Your task to perform on an android device: turn smart compose on in the gmail app Image 0: 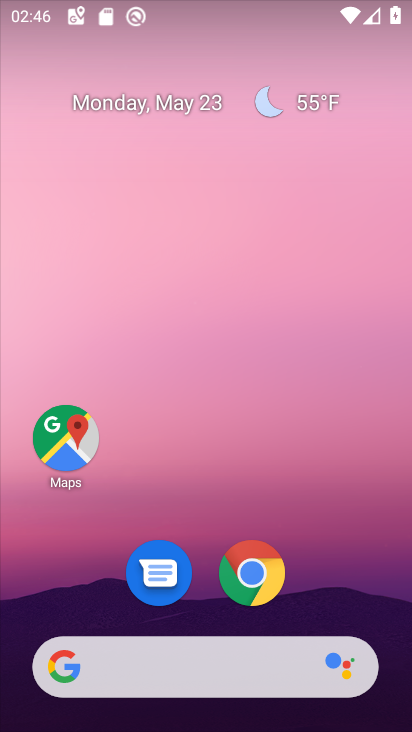
Step 0: drag from (317, 563) to (318, 264)
Your task to perform on an android device: turn smart compose on in the gmail app Image 1: 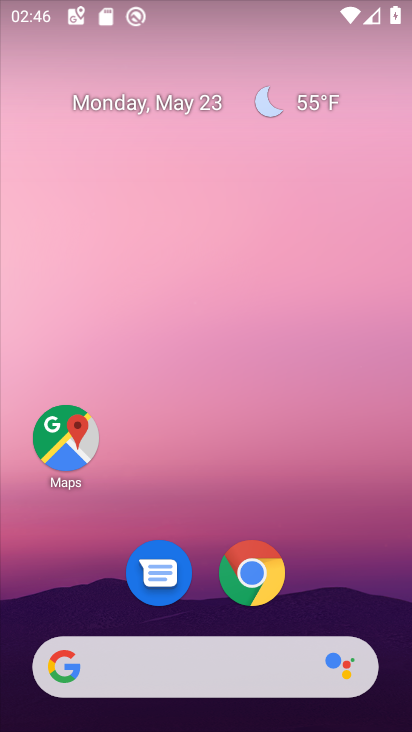
Step 1: drag from (316, 578) to (303, 192)
Your task to perform on an android device: turn smart compose on in the gmail app Image 2: 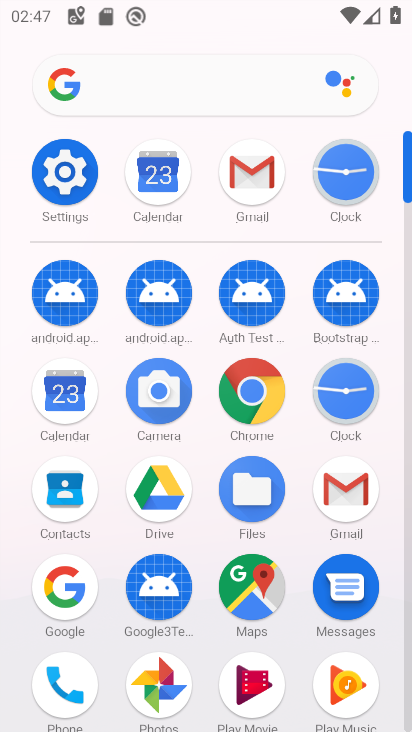
Step 2: click (243, 202)
Your task to perform on an android device: turn smart compose on in the gmail app Image 3: 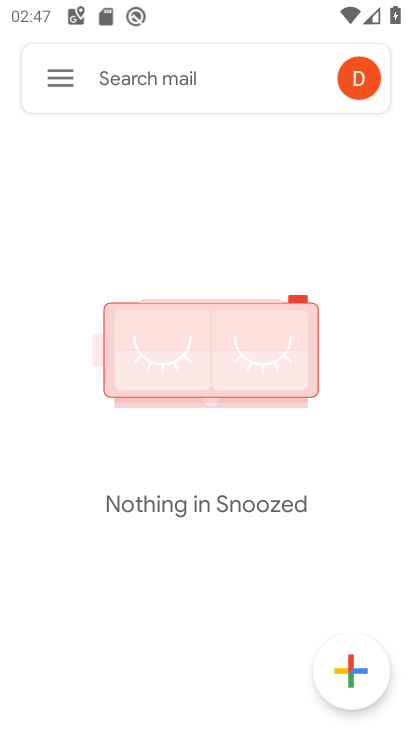
Step 3: click (69, 81)
Your task to perform on an android device: turn smart compose on in the gmail app Image 4: 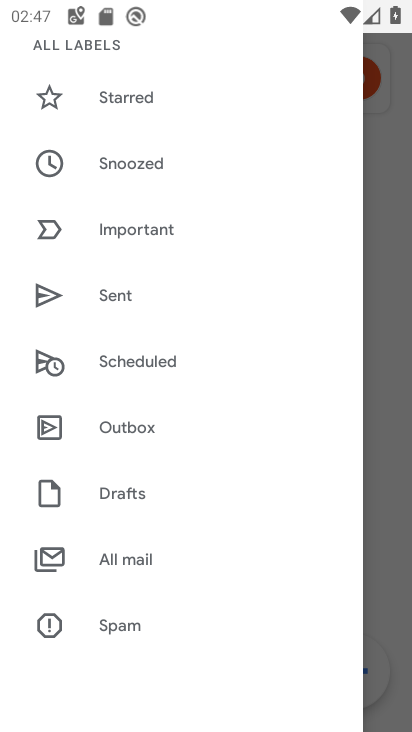
Step 4: drag from (195, 528) to (184, 197)
Your task to perform on an android device: turn smart compose on in the gmail app Image 5: 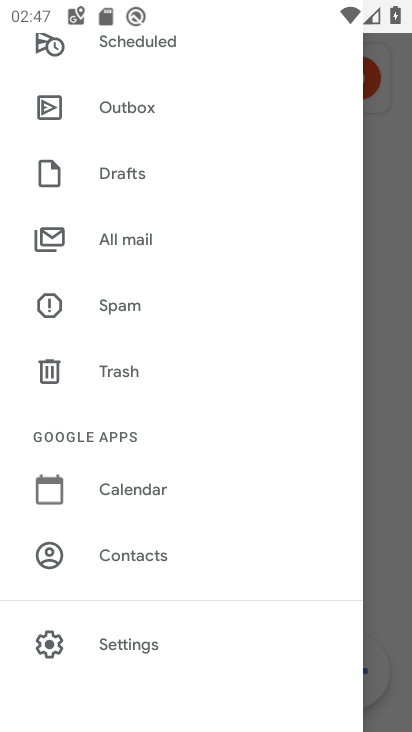
Step 5: drag from (171, 504) to (172, 241)
Your task to perform on an android device: turn smart compose on in the gmail app Image 6: 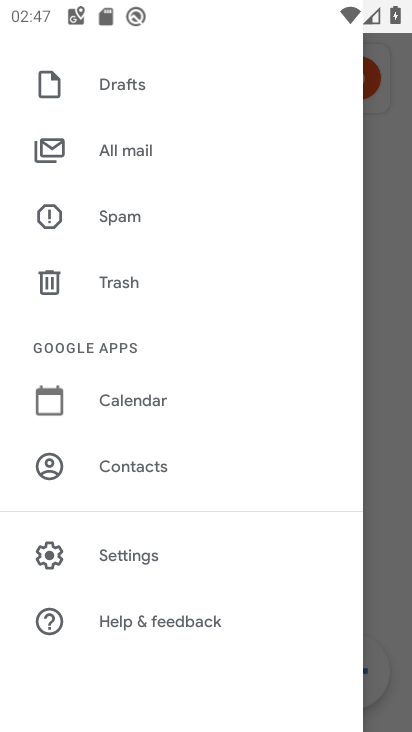
Step 6: drag from (200, 570) to (214, 259)
Your task to perform on an android device: turn smart compose on in the gmail app Image 7: 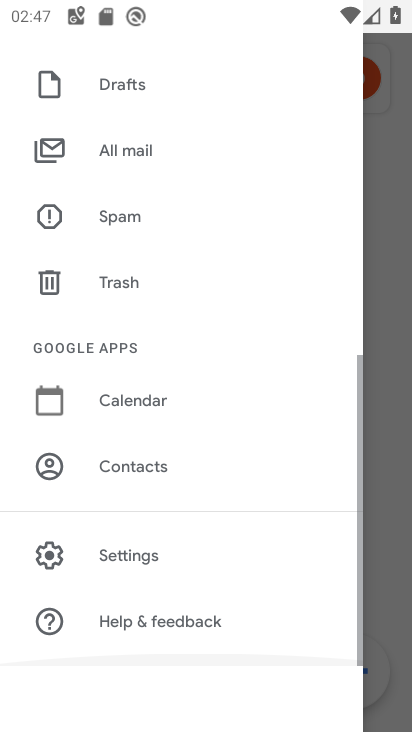
Step 7: drag from (231, 152) to (269, 610)
Your task to perform on an android device: turn smart compose on in the gmail app Image 8: 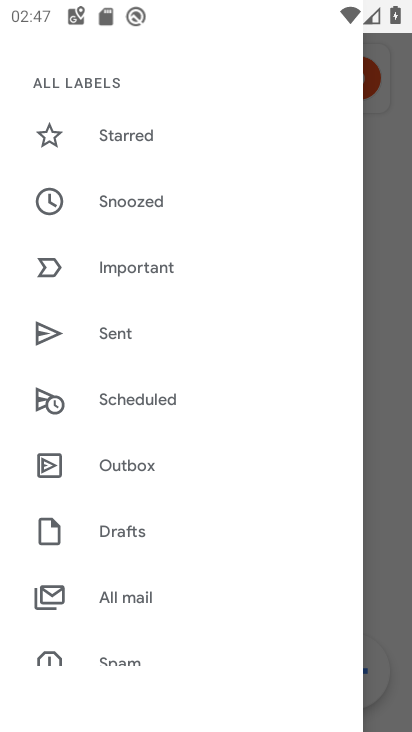
Step 8: drag from (231, 229) to (254, 654)
Your task to perform on an android device: turn smart compose on in the gmail app Image 9: 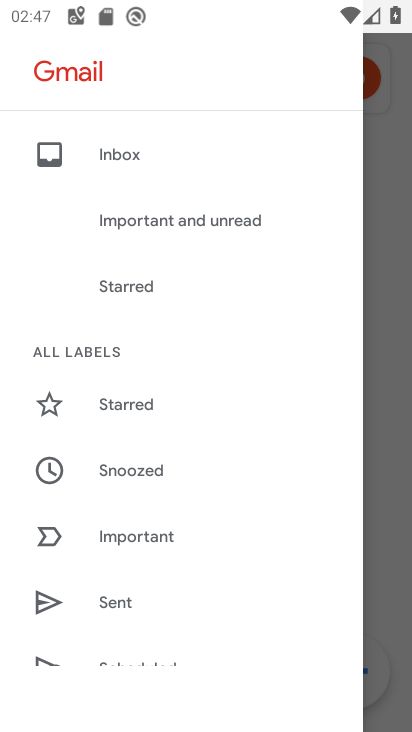
Step 9: drag from (243, 526) to (242, 117)
Your task to perform on an android device: turn smart compose on in the gmail app Image 10: 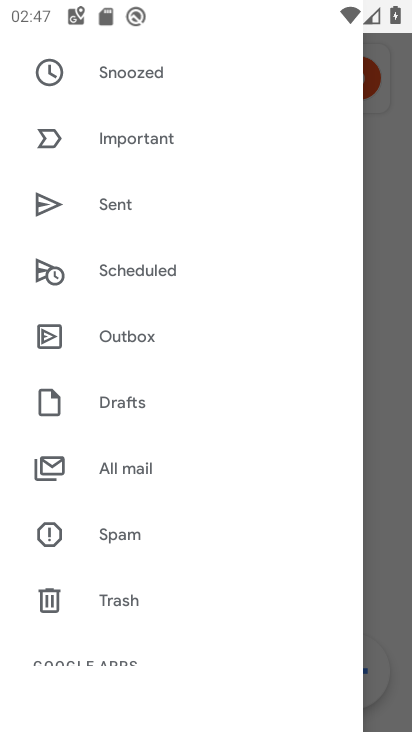
Step 10: drag from (224, 508) to (229, 135)
Your task to perform on an android device: turn smart compose on in the gmail app Image 11: 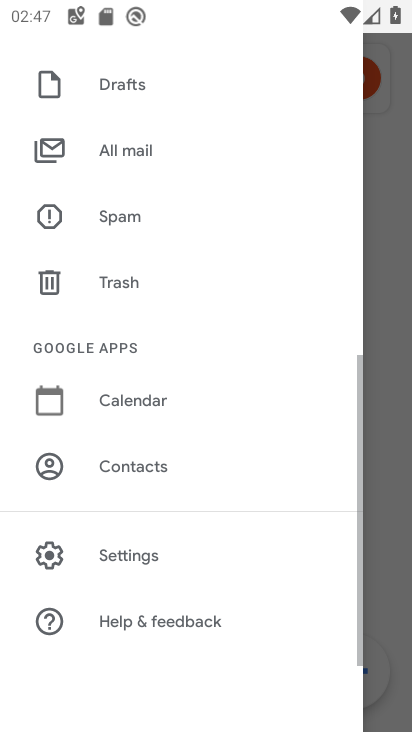
Step 11: click (156, 550)
Your task to perform on an android device: turn smart compose on in the gmail app Image 12: 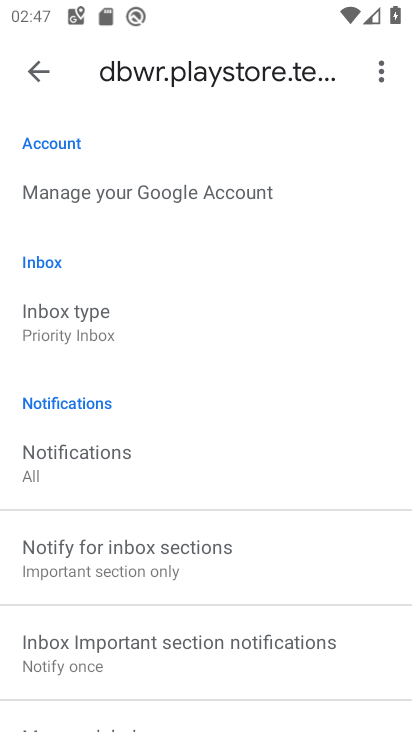
Step 12: task complete